Your task to perform on an android device: Open Google Chrome Image 0: 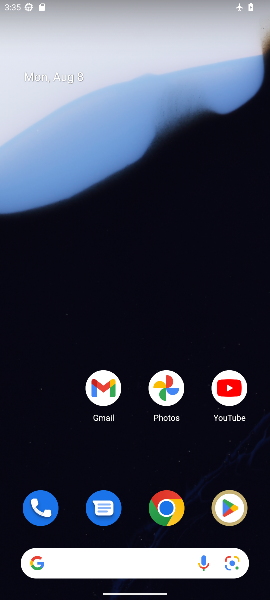
Step 0: click (169, 506)
Your task to perform on an android device: Open Google Chrome Image 1: 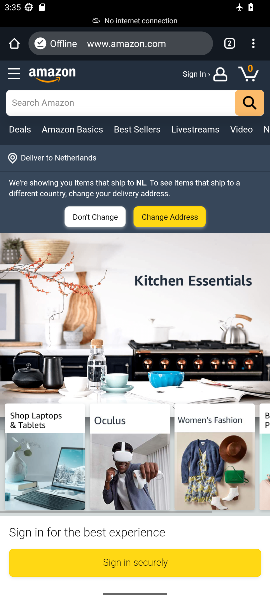
Step 1: task complete